Your task to perform on an android device: search for starred emails in the gmail app Image 0: 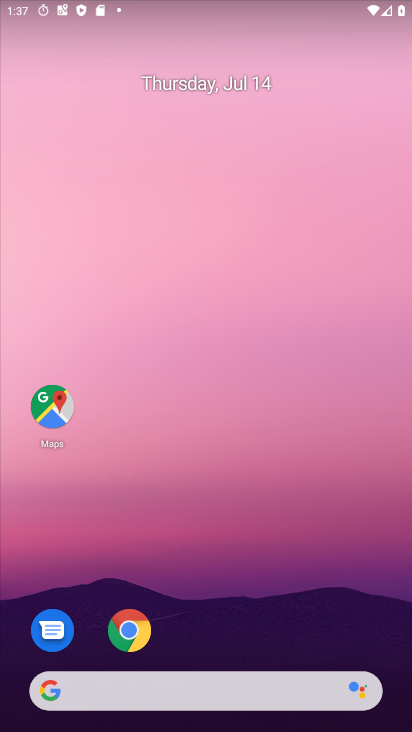
Step 0: drag from (201, 702) to (213, 64)
Your task to perform on an android device: search for starred emails in the gmail app Image 1: 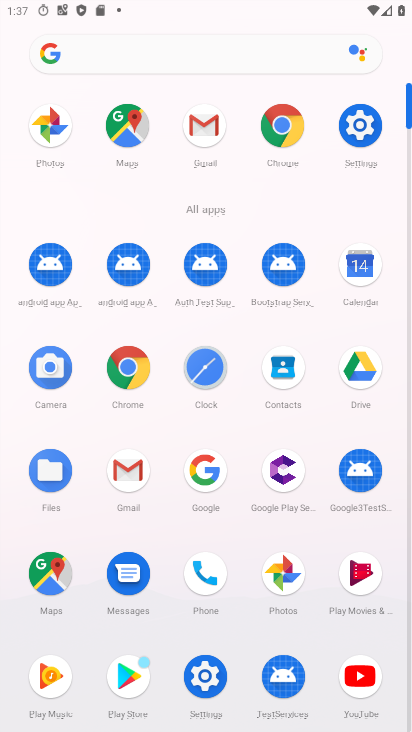
Step 1: click (131, 479)
Your task to perform on an android device: search for starred emails in the gmail app Image 2: 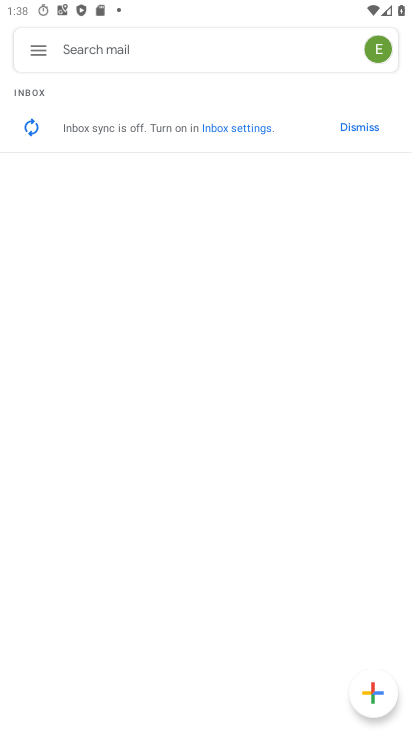
Step 2: click (42, 59)
Your task to perform on an android device: search for starred emails in the gmail app Image 3: 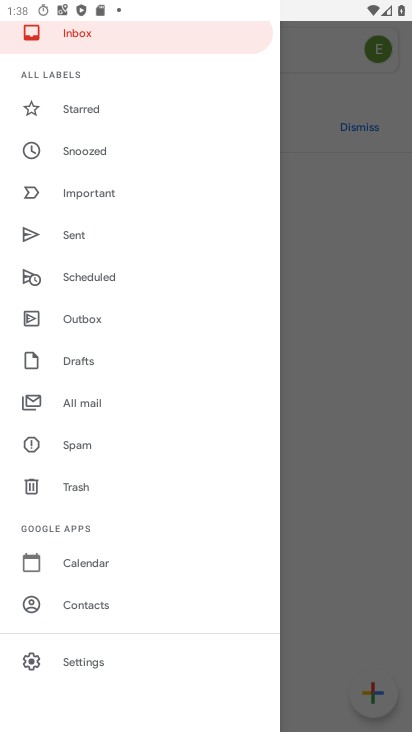
Step 3: click (88, 113)
Your task to perform on an android device: search for starred emails in the gmail app Image 4: 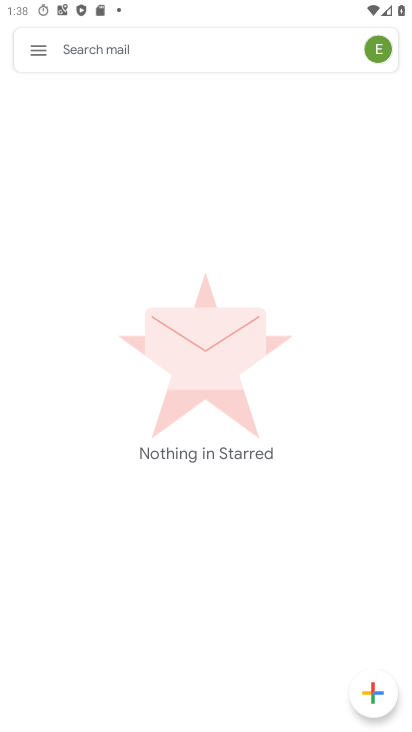
Step 4: task complete